Your task to perform on an android device: allow notifications from all sites in the chrome app Image 0: 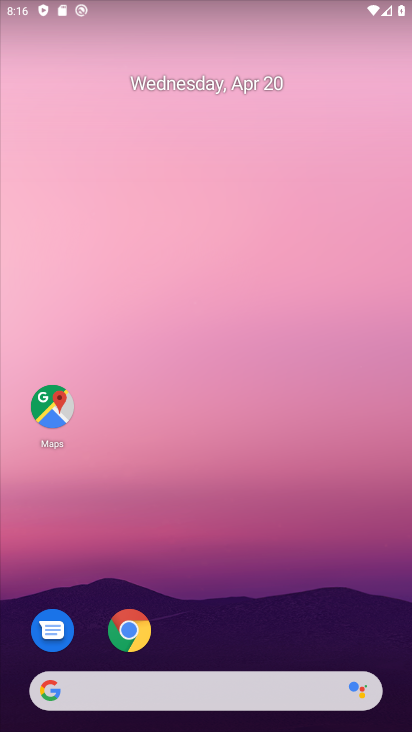
Step 0: click (121, 630)
Your task to perform on an android device: allow notifications from all sites in the chrome app Image 1: 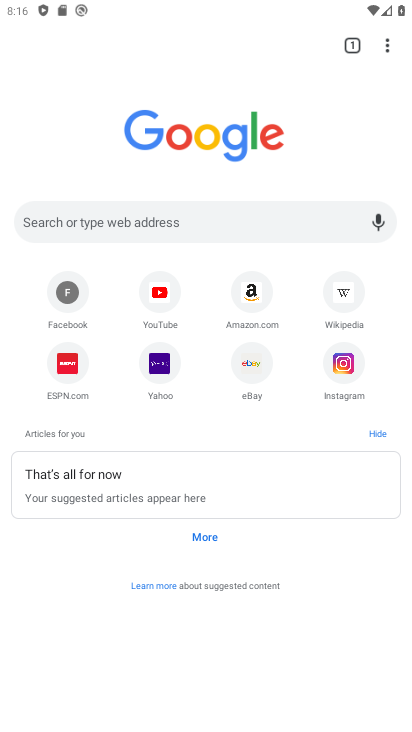
Step 1: click (387, 47)
Your task to perform on an android device: allow notifications from all sites in the chrome app Image 2: 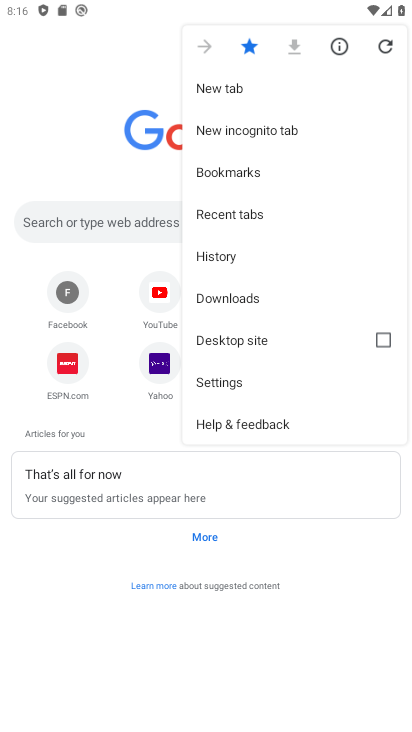
Step 2: click (235, 382)
Your task to perform on an android device: allow notifications from all sites in the chrome app Image 3: 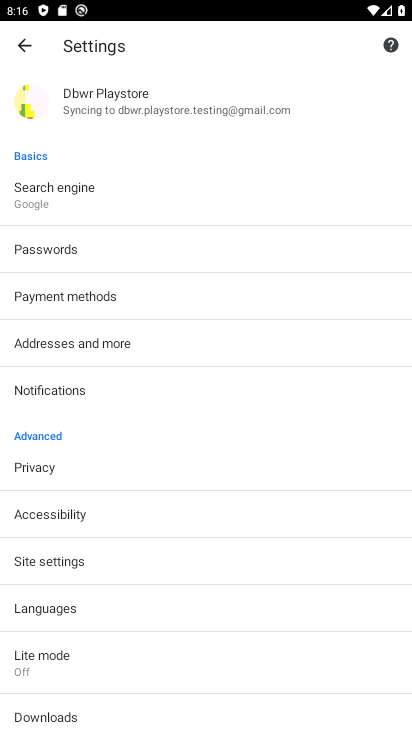
Step 3: click (59, 394)
Your task to perform on an android device: allow notifications from all sites in the chrome app Image 4: 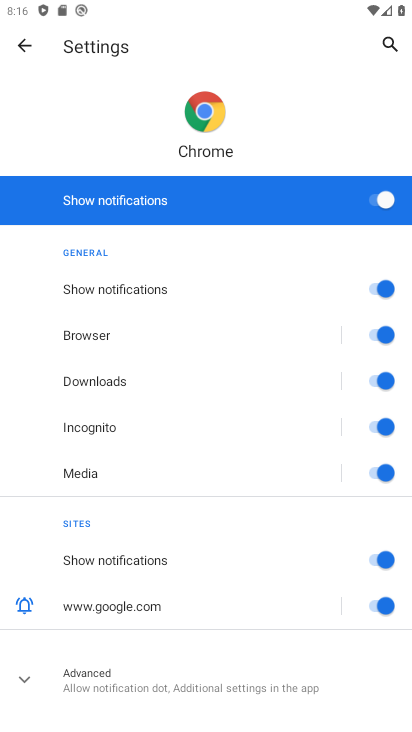
Step 4: click (17, 41)
Your task to perform on an android device: allow notifications from all sites in the chrome app Image 5: 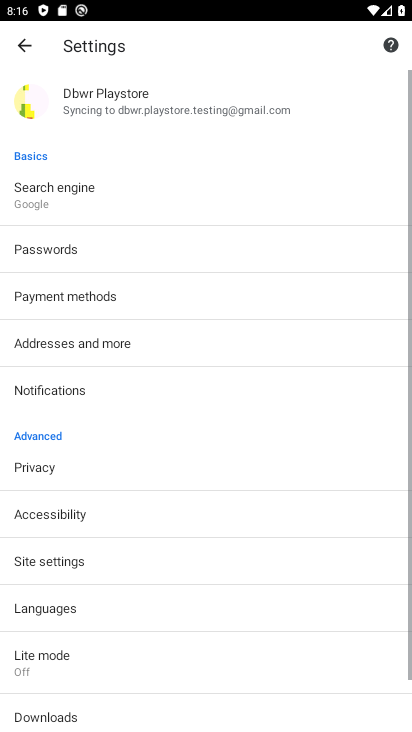
Step 5: click (61, 553)
Your task to perform on an android device: allow notifications from all sites in the chrome app Image 6: 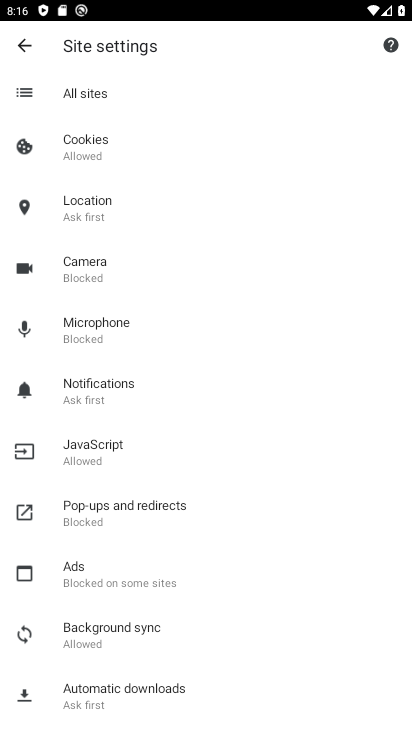
Step 6: click (121, 391)
Your task to perform on an android device: allow notifications from all sites in the chrome app Image 7: 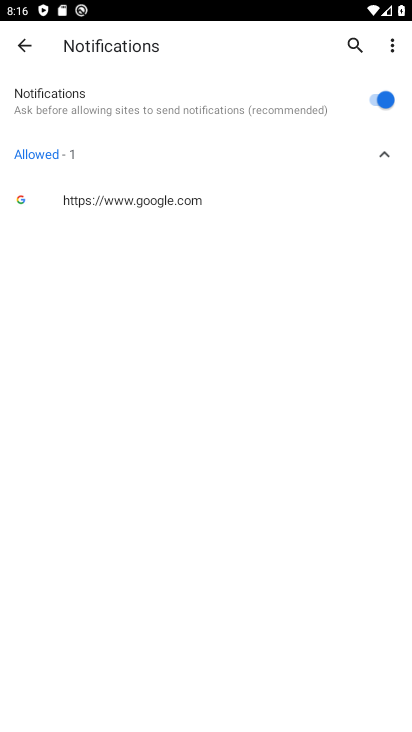
Step 7: task complete